Your task to perform on an android device: toggle improve location accuracy Image 0: 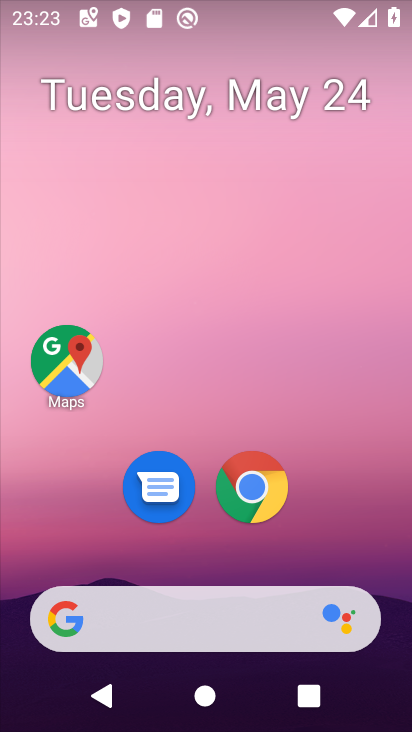
Step 0: drag from (126, 515) to (238, 51)
Your task to perform on an android device: toggle improve location accuracy Image 1: 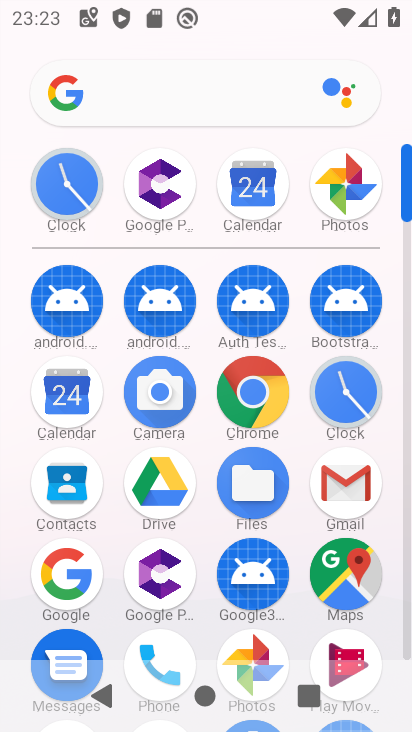
Step 1: drag from (187, 533) to (287, 110)
Your task to perform on an android device: toggle improve location accuracy Image 2: 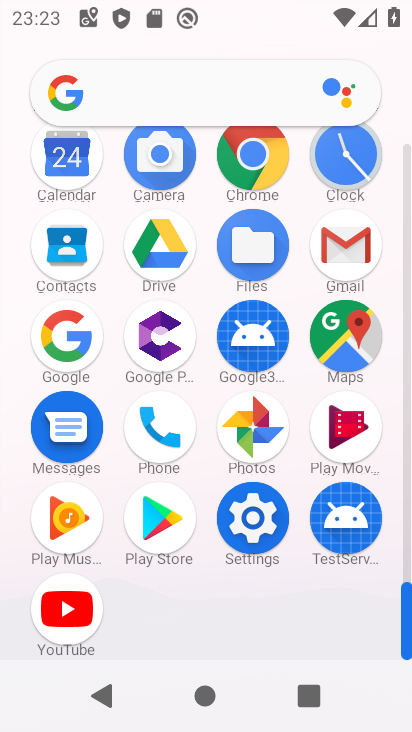
Step 2: click (259, 526)
Your task to perform on an android device: toggle improve location accuracy Image 3: 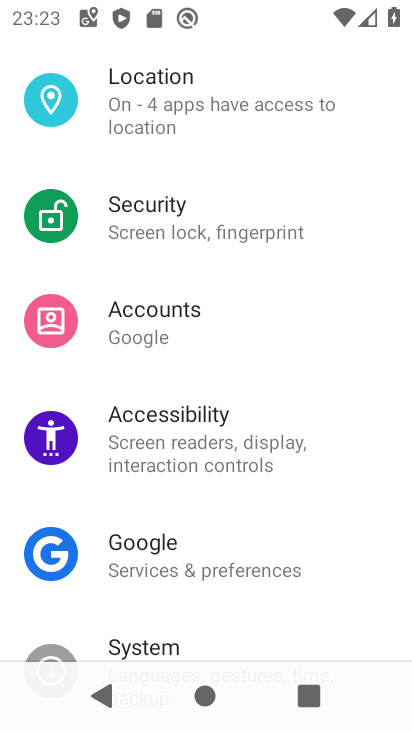
Step 3: click (151, 99)
Your task to perform on an android device: toggle improve location accuracy Image 4: 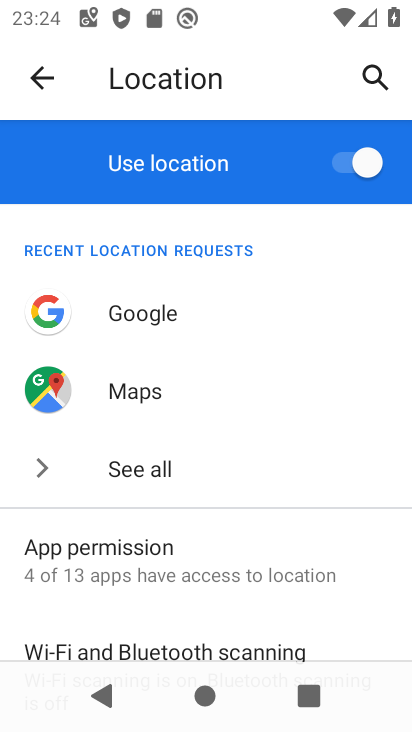
Step 4: drag from (150, 594) to (149, 173)
Your task to perform on an android device: toggle improve location accuracy Image 5: 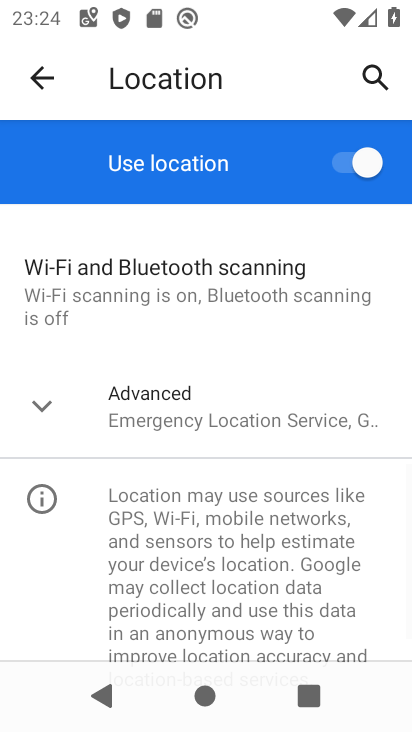
Step 5: click (183, 398)
Your task to perform on an android device: toggle improve location accuracy Image 6: 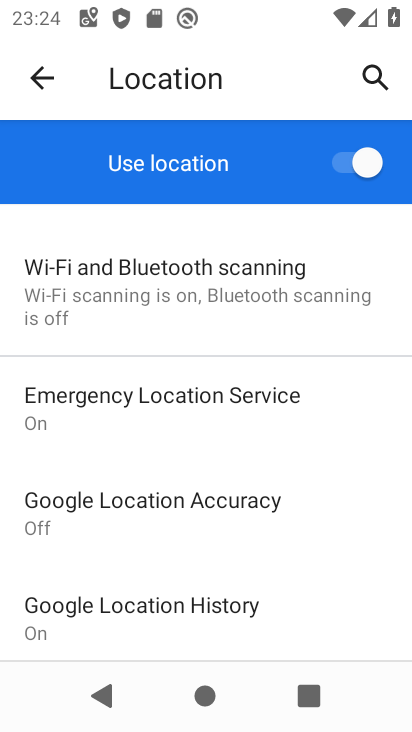
Step 6: click (123, 509)
Your task to perform on an android device: toggle improve location accuracy Image 7: 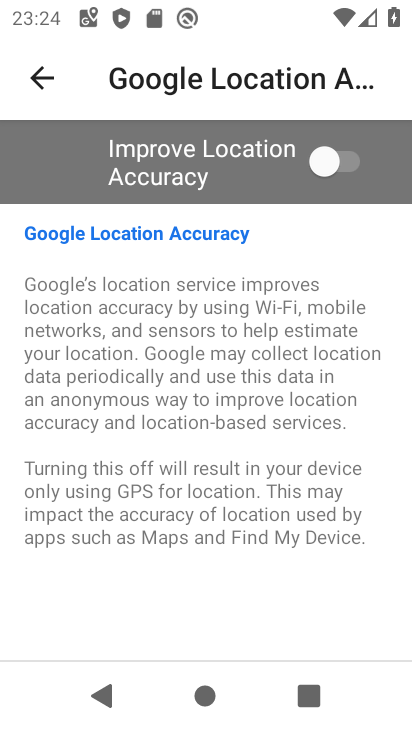
Step 7: click (338, 152)
Your task to perform on an android device: toggle improve location accuracy Image 8: 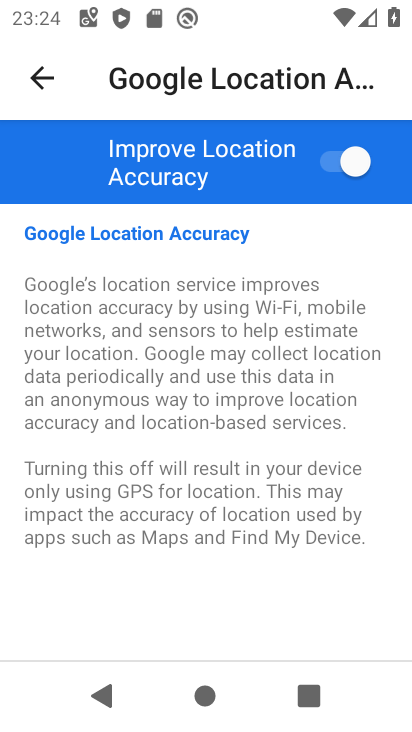
Step 8: task complete